Your task to perform on an android device: turn off picture-in-picture Image 0: 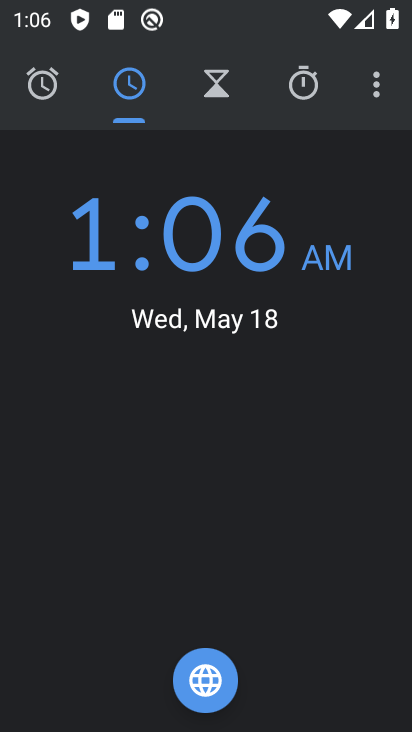
Step 0: press home button
Your task to perform on an android device: turn off picture-in-picture Image 1: 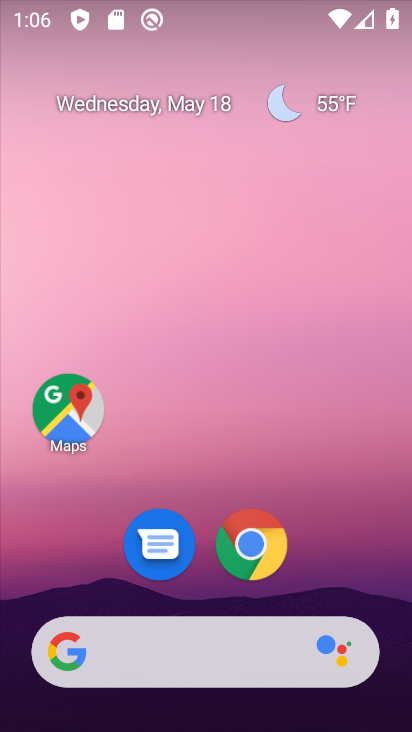
Step 1: drag from (304, 571) to (263, 68)
Your task to perform on an android device: turn off picture-in-picture Image 2: 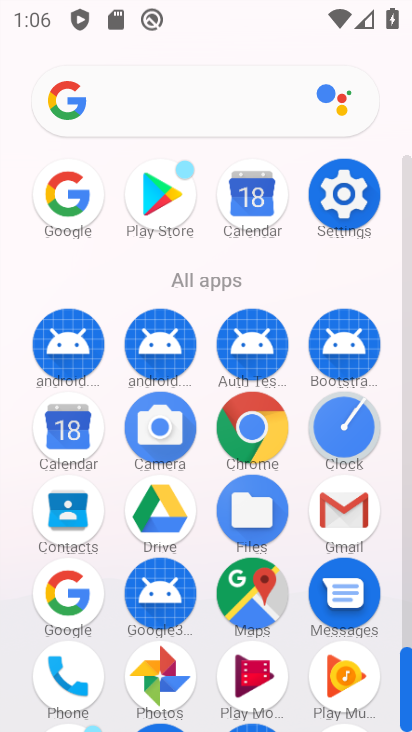
Step 2: click (338, 187)
Your task to perform on an android device: turn off picture-in-picture Image 3: 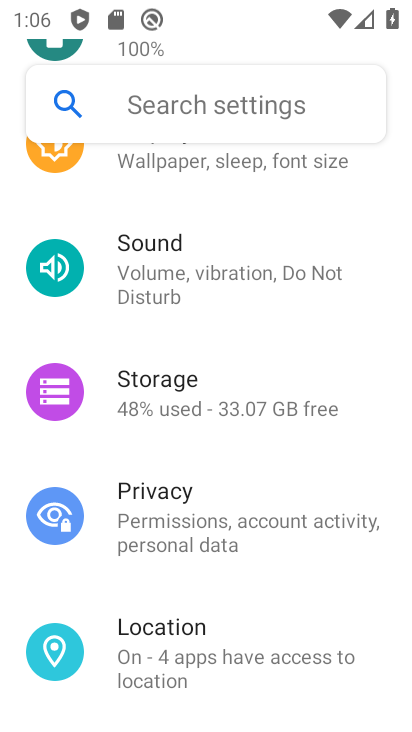
Step 3: drag from (265, 218) to (256, 451)
Your task to perform on an android device: turn off picture-in-picture Image 4: 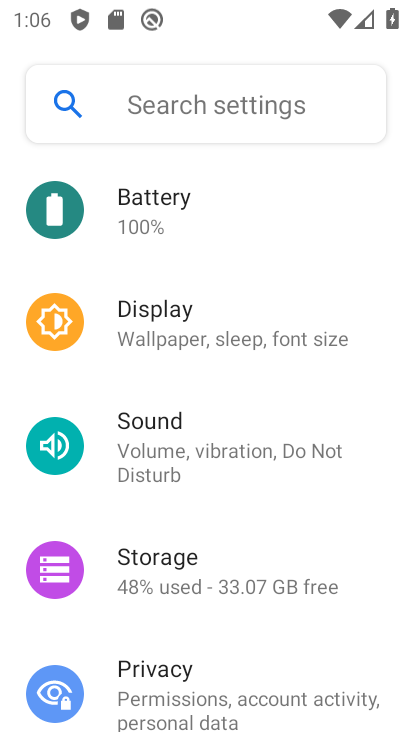
Step 4: drag from (266, 259) to (273, 551)
Your task to perform on an android device: turn off picture-in-picture Image 5: 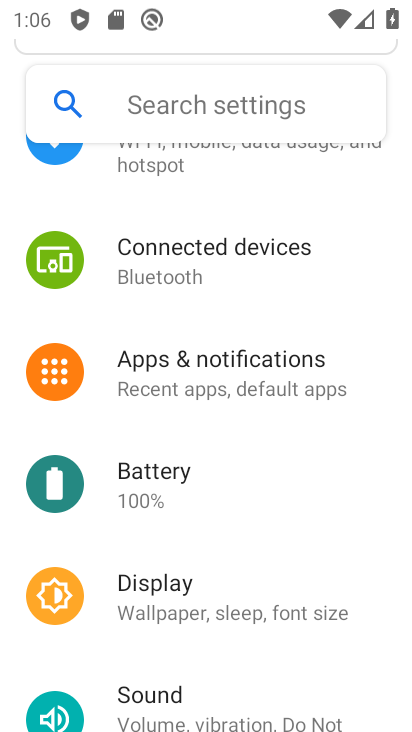
Step 5: click (259, 383)
Your task to perform on an android device: turn off picture-in-picture Image 6: 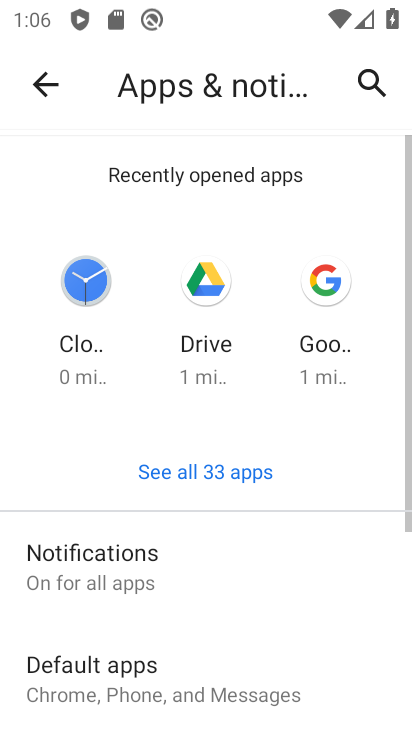
Step 6: drag from (329, 632) to (272, 373)
Your task to perform on an android device: turn off picture-in-picture Image 7: 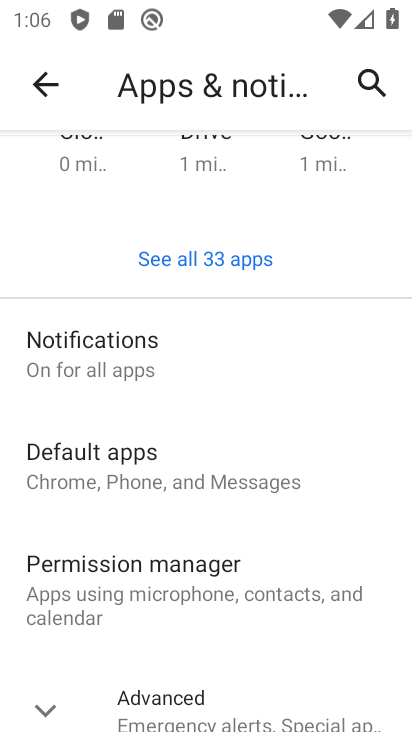
Step 7: click (200, 690)
Your task to perform on an android device: turn off picture-in-picture Image 8: 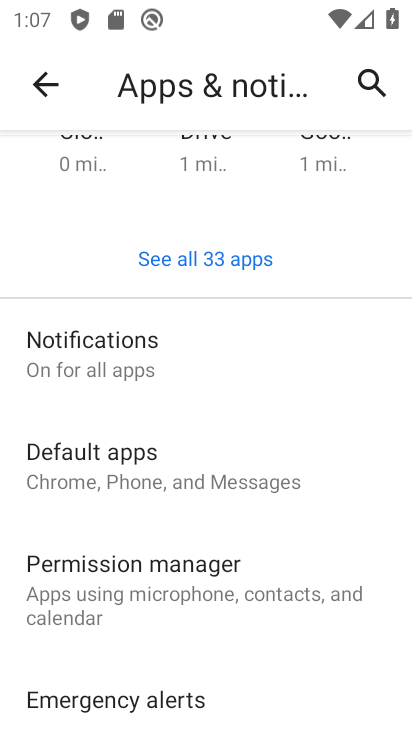
Step 8: drag from (230, 668) to (245, 412)
Your task to perform on an android device: turn off picture-in-picture Image 9: 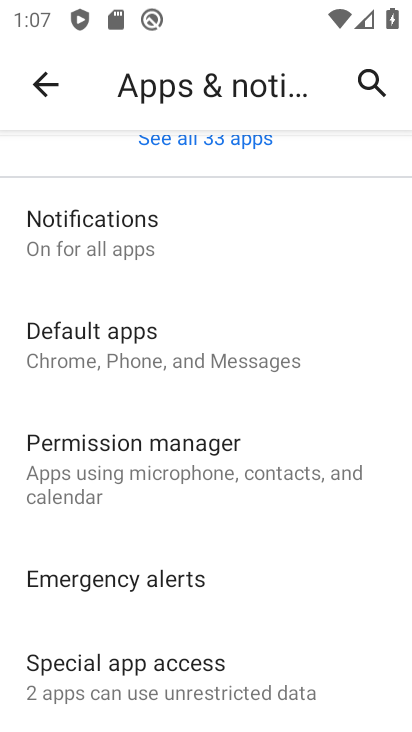
Step 9: click (172, 669)
Your task to perform on an android device: turn off picture-in-picture Image 10: 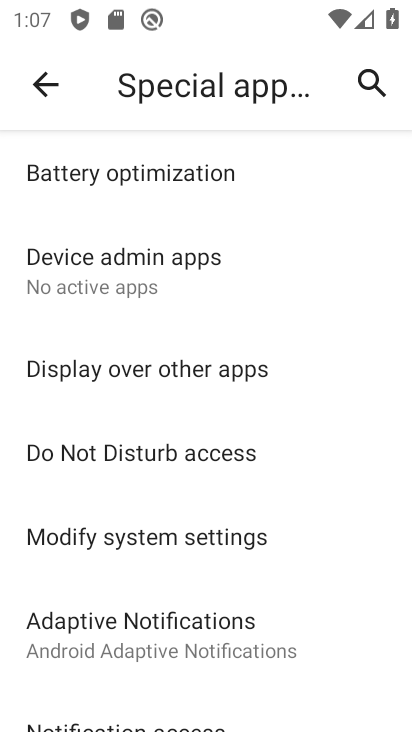
Step 10: drag from (323, 617) to (295, 313)
Your task to perform on an android device: turn off picture-in-picture Image 11: 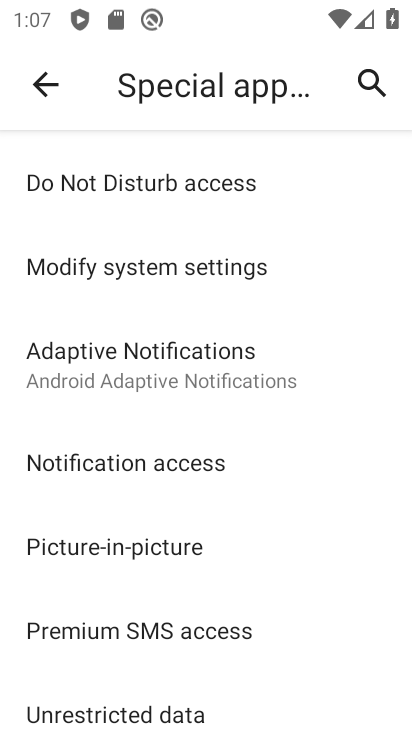
Step 11: click (117, 549)
Your task to perform on an android device: turn off picture-in-picture Image 12: 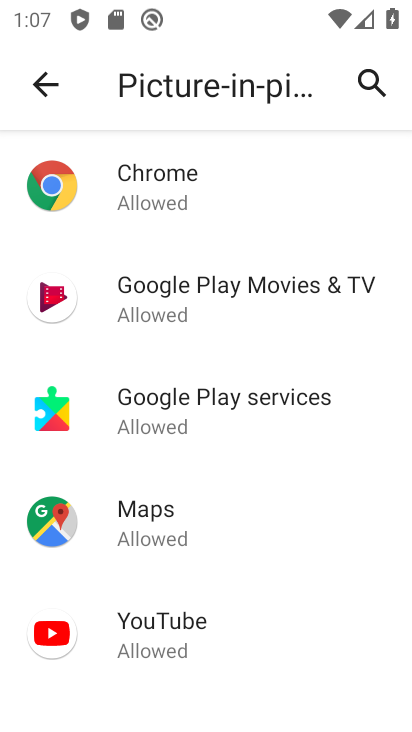
Step 12: click (160, 171)
Your task to perform on an android device: turn off picture-in-picture Image 13: 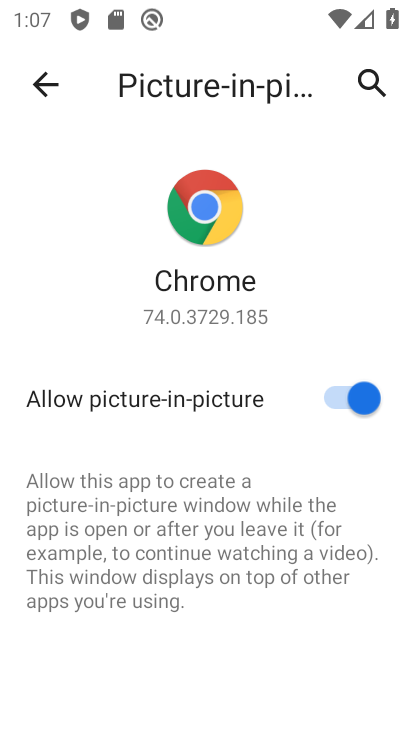
Step 13: click (339, 387)
Your task to perform on an android device: turn off picture-in-picture Image 14: 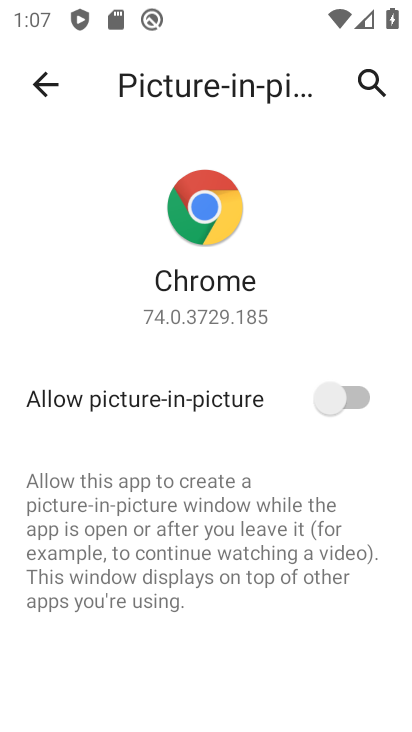
Step 14: click (32, 95)
Your task to perform on an android device: turn off picture-in-picture Image 15: 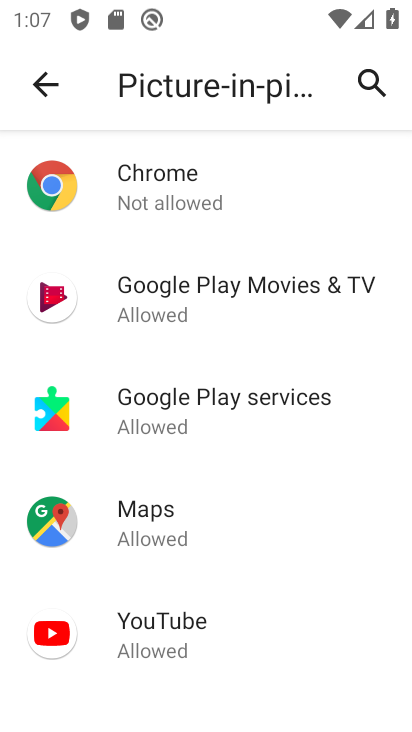
Step 15: click (157, 283)
Your task to perform on an android device: turn off picture-in-picture Image 16: 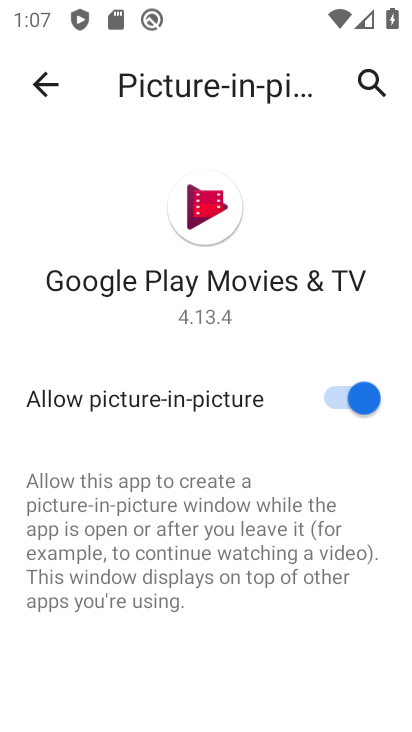
Step 16: click (346, 387)
Your task to perform on an android device: turn off picture-in-picture Image 17: 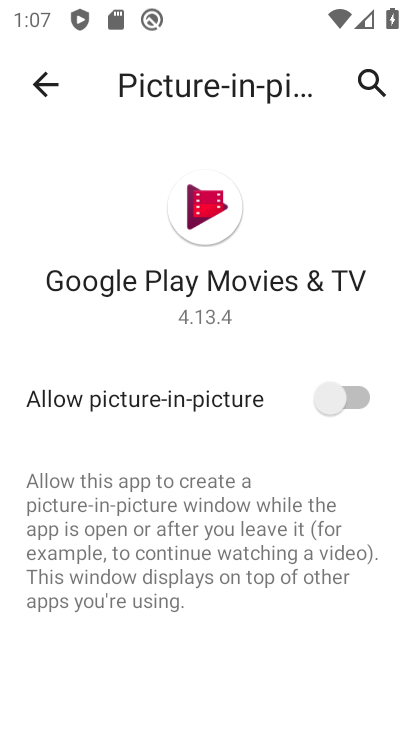
Step 17: click (47, 71)
Your task to perform on an android device: turn off picture-in-picture Image 18: 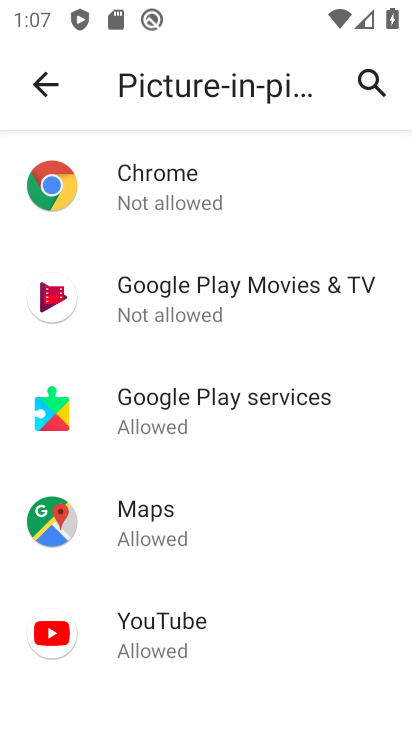
Step 18: click (162, 405)
Your task to perform on an android device: turn off picture-in-picture Image 19: 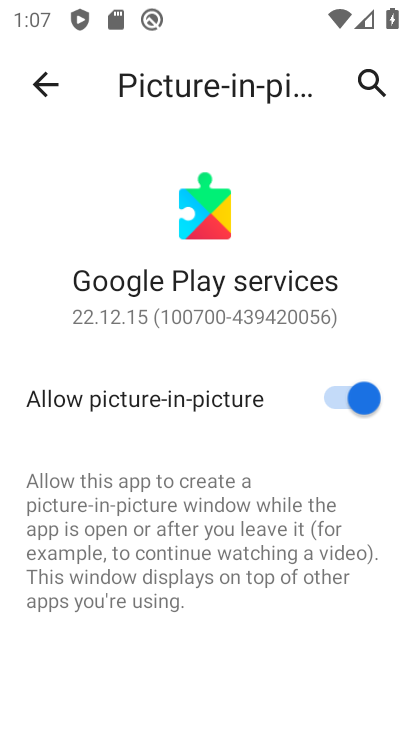
Step 19: click (338, 395)
Your task to perform on an android device: turn off picture-in-picture Image 20: 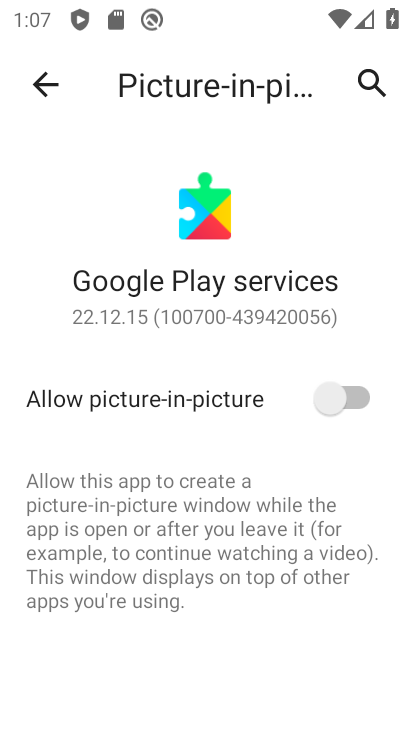
Step 20: click (44, 75)
Your task to perform on an android device: turn off picture-in-picture Image 21: 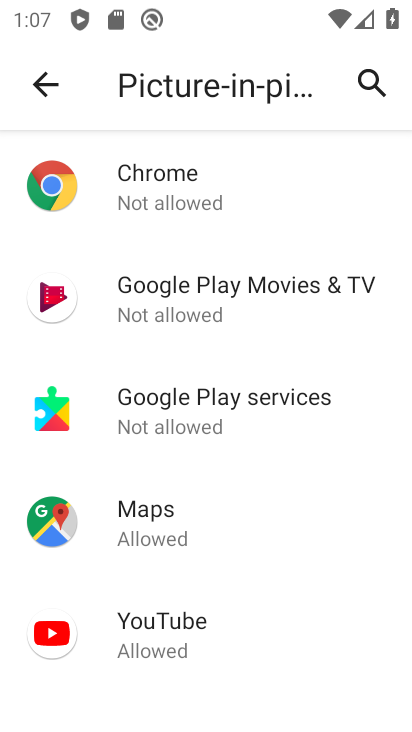
Step 21: click (157, 545)
Your task to perform on an android device: turn off picture-in-picture Image 22: 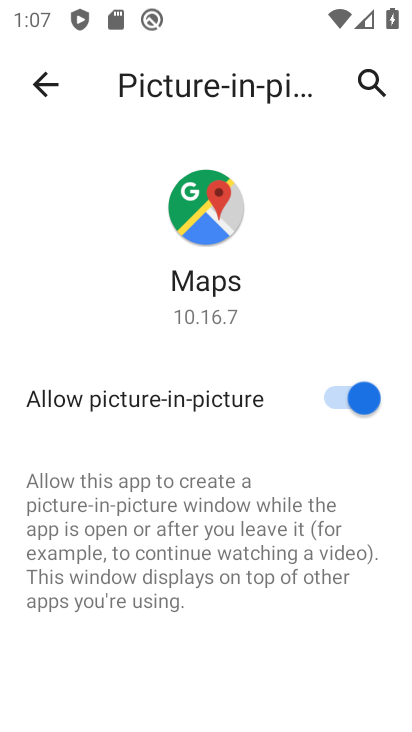
Step 22: click (334, 398)
Your task to perform on an android device: turn off picture-in-picture Image 23: 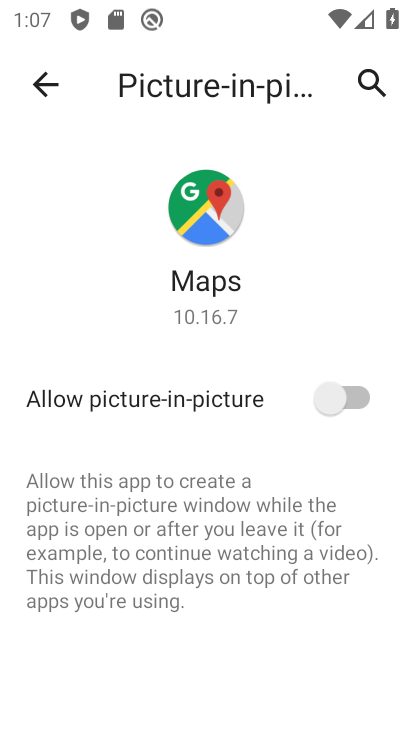
Step 23: click (42, 87)
Your task to perform on an android device: turn off picture-in-picture Image 24: 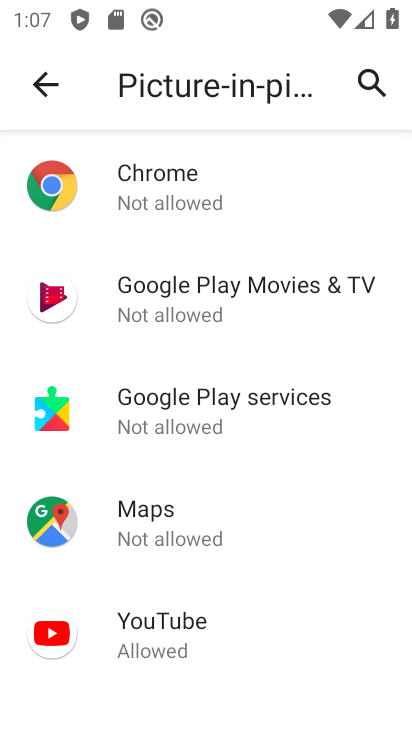
Step 24: drag from (236, 594) to (212, 252)
Your task to perform on an android device: turn off picture-in-picture Image 25: 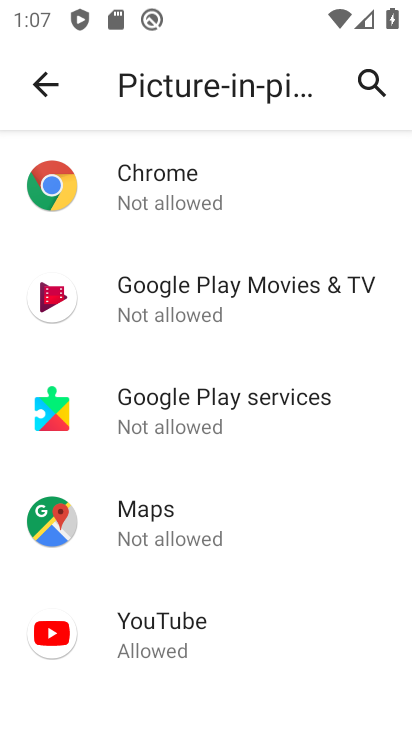
Step 25: click (133, 623)
Your task to perform on an android device: turn off picture-in-picture Image 26: 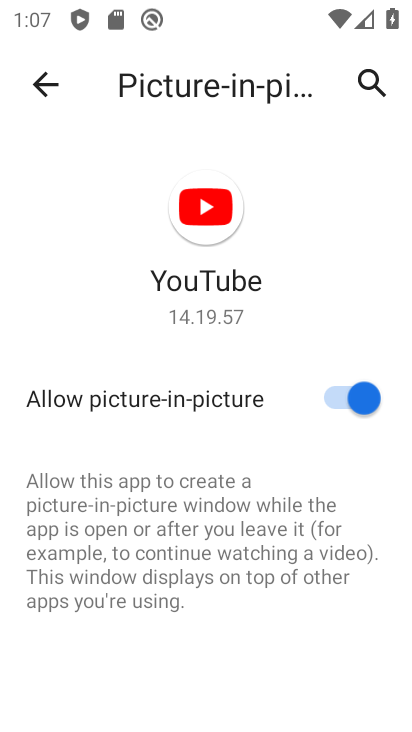
Step 26: click (338, 400)
Your task to perform on an android device: turn off picture-in-picture Image 27: 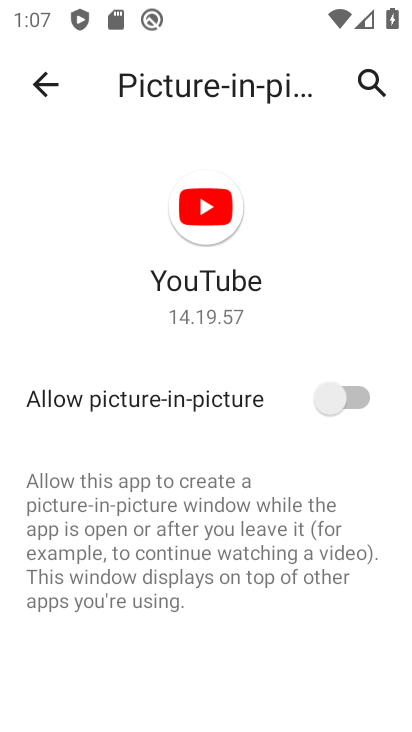
Step 27: task complete